Your task to perform on an android device: turn on the 24-hour format for clock Image 0: 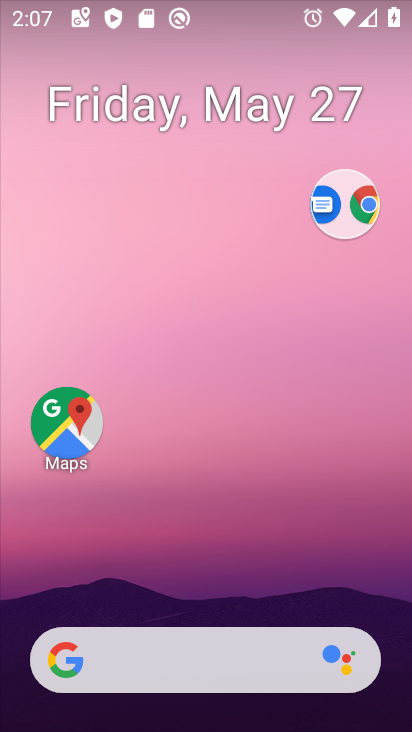
Step 0: drag from (273, 621) to (338, 243)
Your task to perform on an android device: turn on the 24-hour format for clock Image 1: 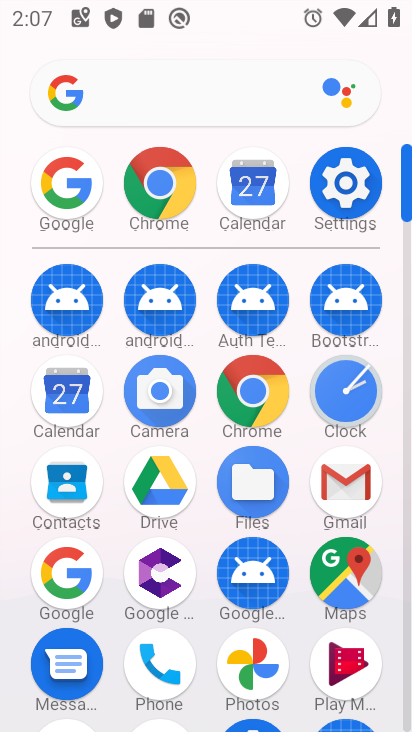
Step 1: click (364, 402)
Your task to perform on an android device: turn on the 24-hour format for clock Image 2: 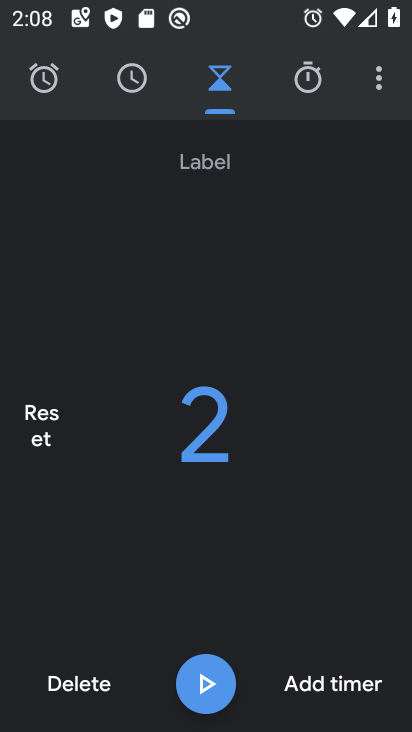
Step 2: click (389, 88)
Your task to perform on an android device: turn on the 24-hour format for clock Image 3: 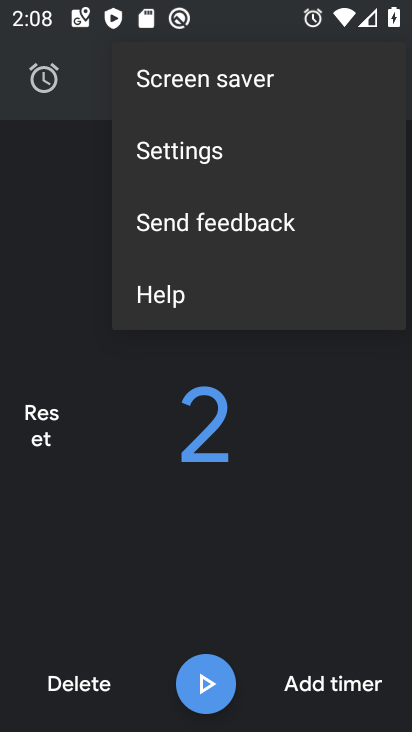
Step 3: click (210, 154)
Your task to perform on an android device: turn on the 24-hour format for clock Image 4: 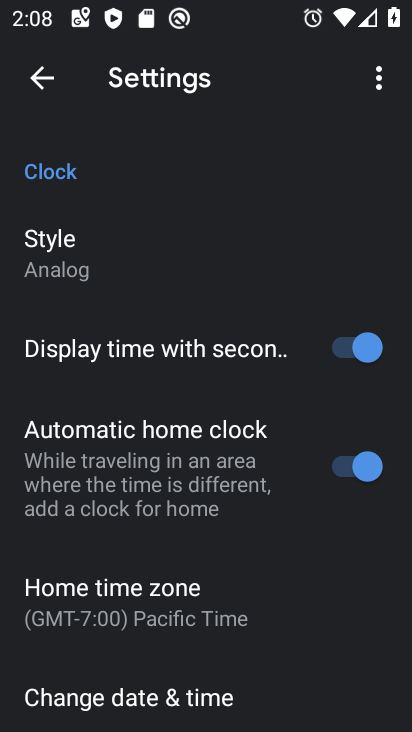
Step 4: drag from (196, 518) to (244, 168)
Your task to perform on an android device: turn on the 24-hour format for clock Image 5: 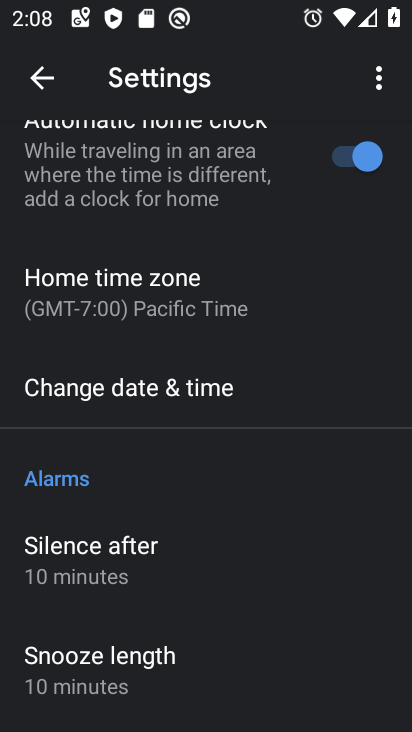
Step 5: click (205, 383)
Your task to perform on an android device: turn on the 24-hour format for clock Image 6: 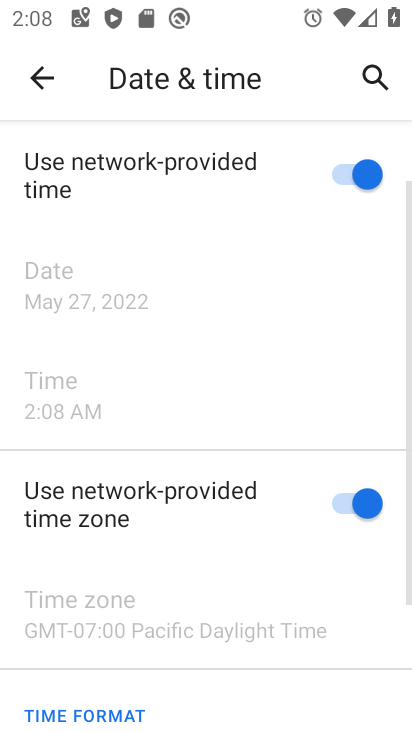
Step 6: task complete